Your task to perform on an android device: Open settings on Google Maps Image 0: 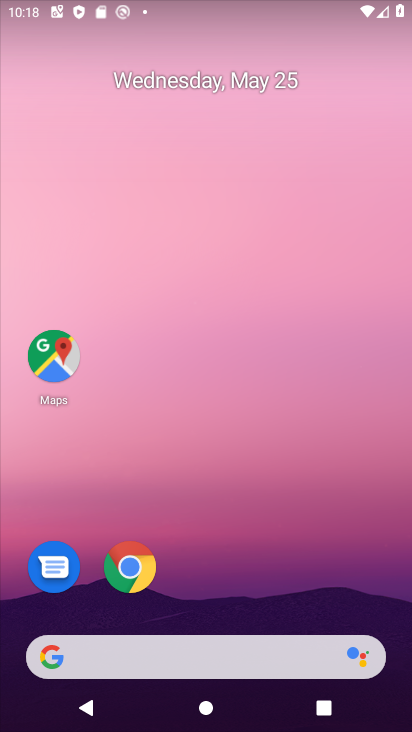
Step 0: drag from (246, 630) to (219, 37)
Your task to perform on an android device: Open settings on Google Maps Image 1: 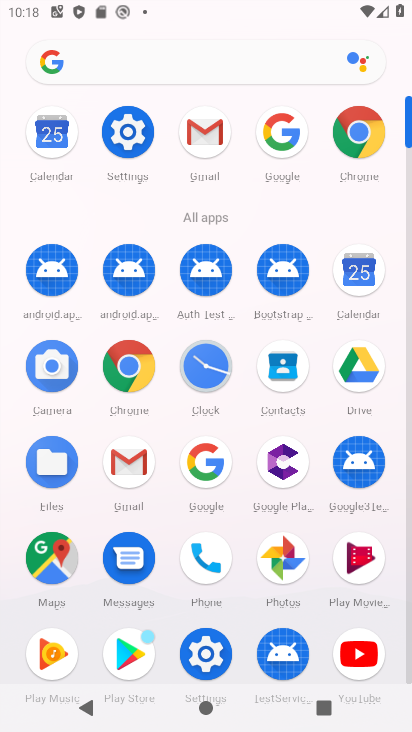
Step 1: click (279, 140)
Your task to perform on an android device: Open settings on Google Maps Image 2: 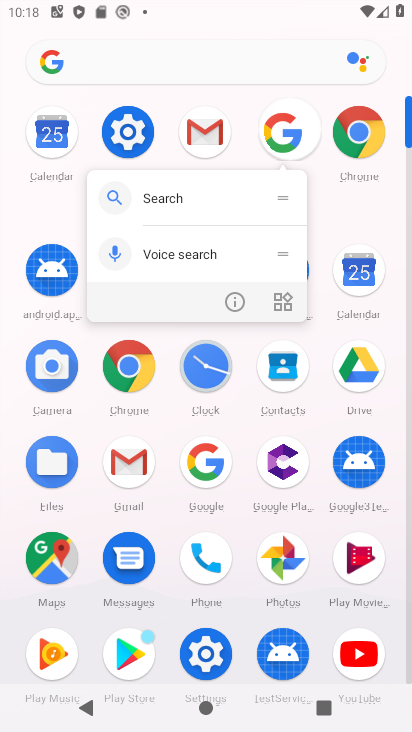
Step 2: click (286, 137)
Your task to perform on an android device: Open settings on Google Maps Image 3: 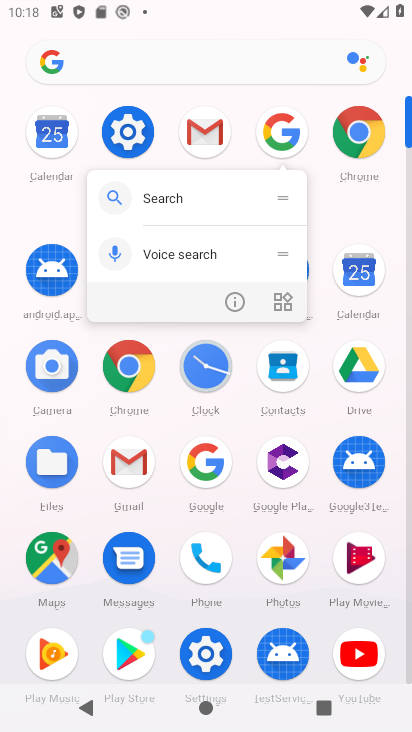
Step 3: click (286, 137)
Your task to perform on an android device: Open settings on Google Maps Image 4: 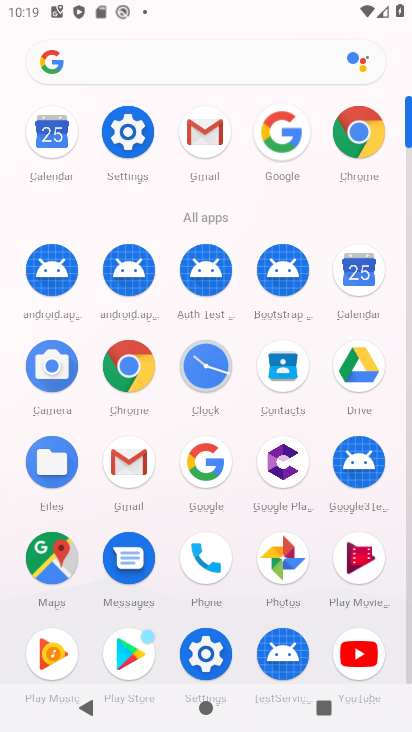
Step 4: click (286, 137)
Your task to perform on an android device: Open settings on Google Maps Image 5: 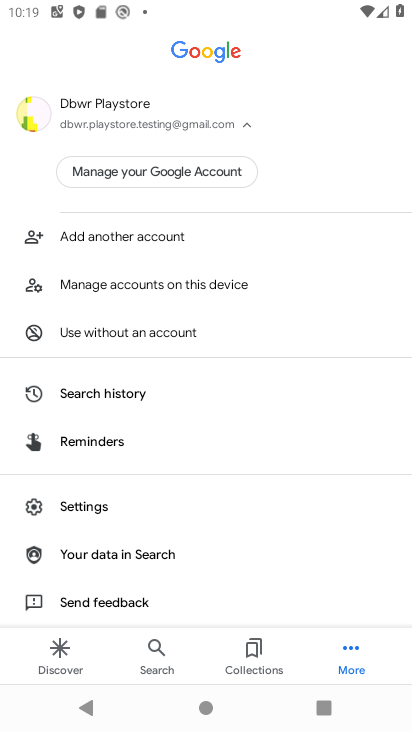
Step 5: press back button
Your task to perform on an android device: Open settings on Google Maps Image 6: 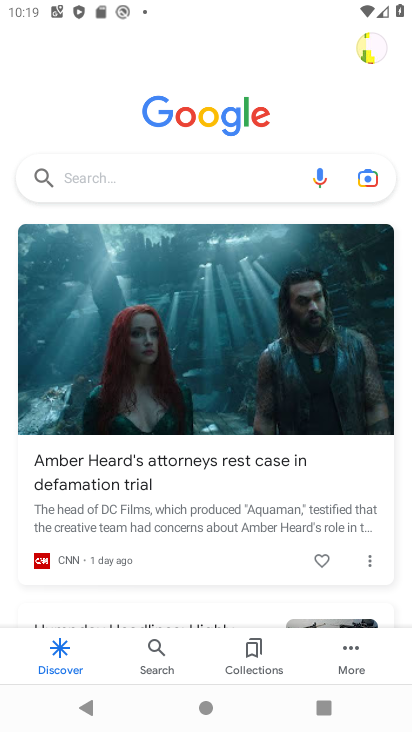
Step 6: press home button
Your task to perform on an android device: Open settings on Google Maps Image 7: 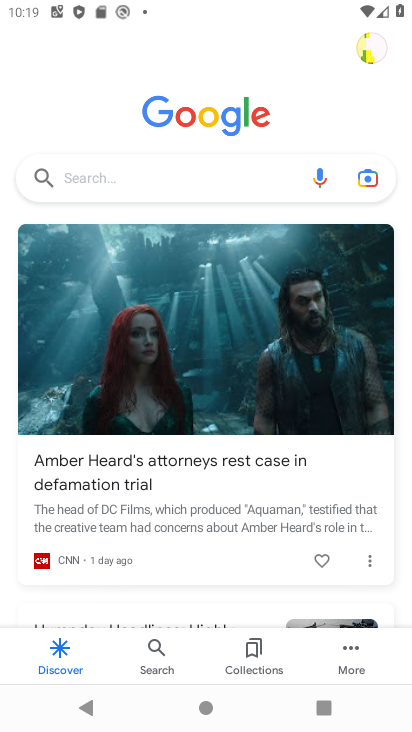
Step 7: press home button
Your task to perform on an android device: Open settings on Google Maps Image 8: 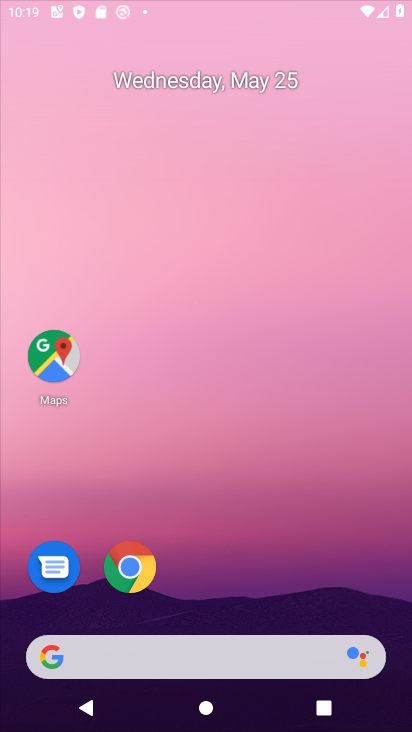
Step 8: press home button
Your task to perform on an android device: Open settings on Google Maps Image 9: 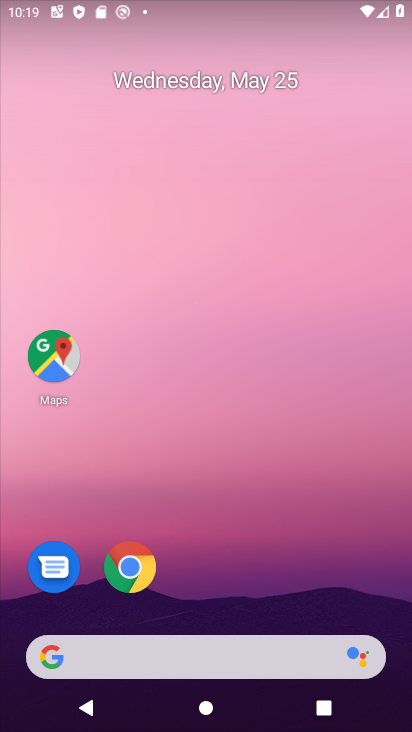
Step 9: drag from (237, 540) to (167, 39)
Your task to perform on an android device: Open settings on Google Maps Image 10: 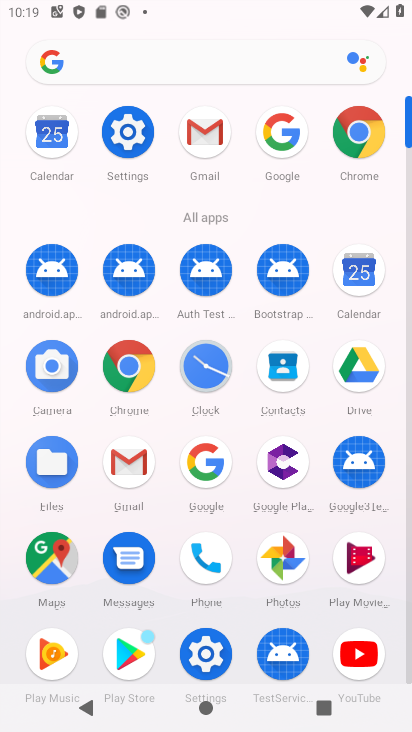
Step 10: click (39, 550)
Your task to perform on an android device: Open settings on Google Maps Image 11: 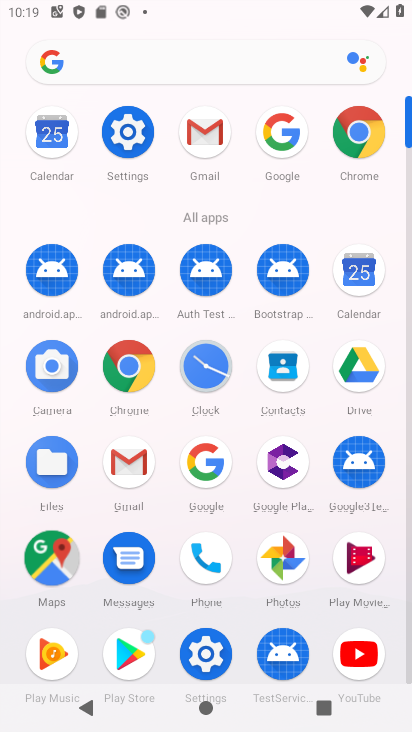
Step 11: click (40, 551)
Your task to perform on an android device: Open settings on Google Maps Image 12: 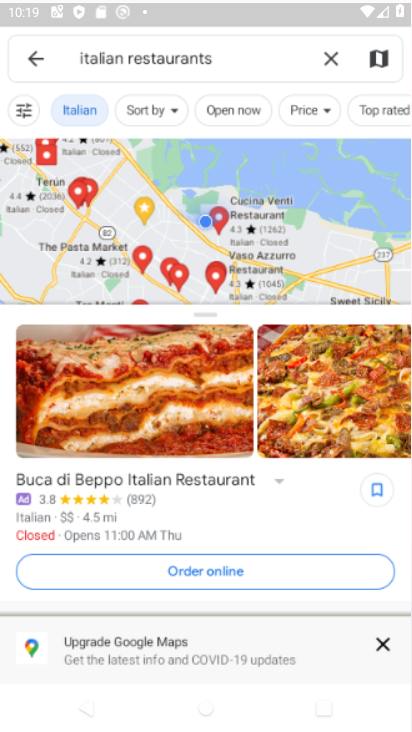
Step 12: click (40, 551)
Your task to perform on an android device: Open settings on Google Maps Image 13: 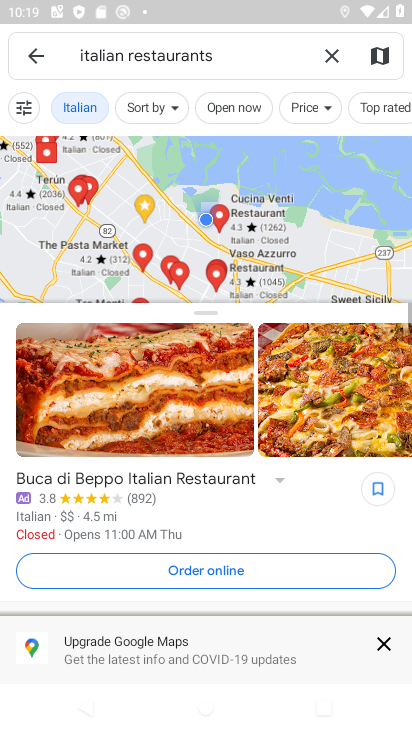
Step 13: task complete